Your task to perform on an android device: Open Yahoo.com Image 0: 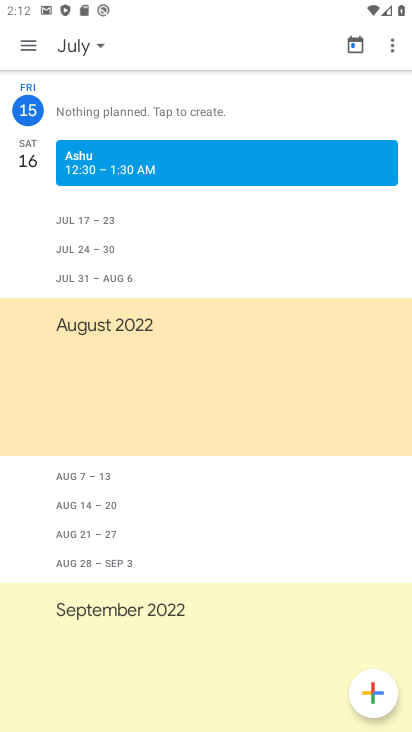
Step 0: press home button
Your task to perform on an android device: Open Yahoo.com Image 1: 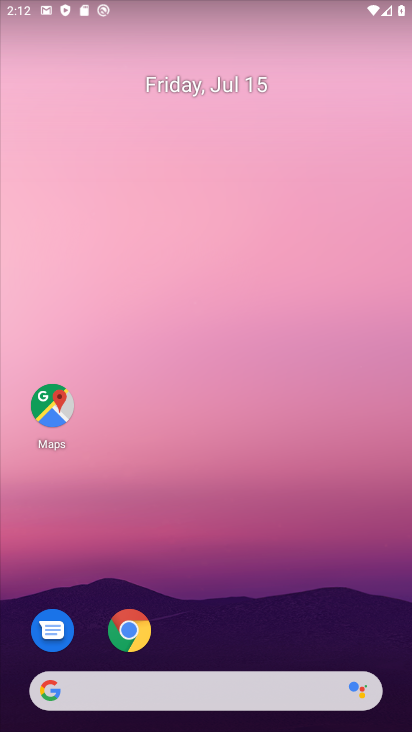
Step 1: drag from (144, 616) to (215, 187)
Your task to perform on an android device: Open Yahoo.com Image 2: 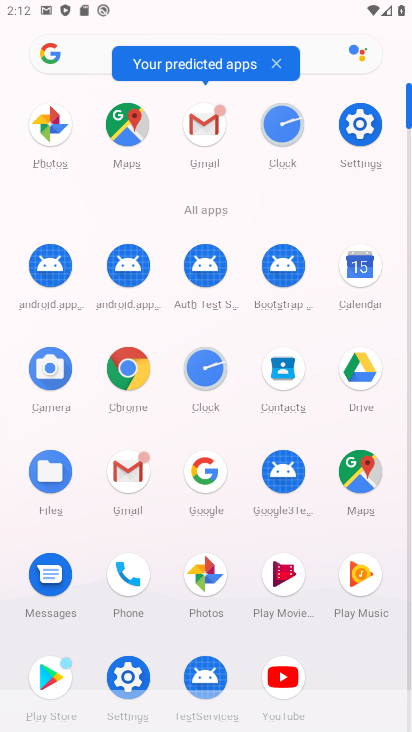
Step 2: click (114, 373)
Your task to perform on an android device: Open Yahoo.com Image 3: 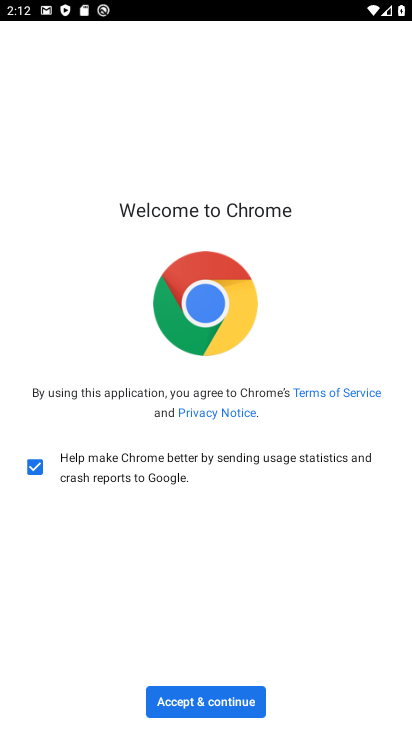
Step 3: click (191, 706)
Your task to perform on an android device: Open Yahoo.com Image 4: 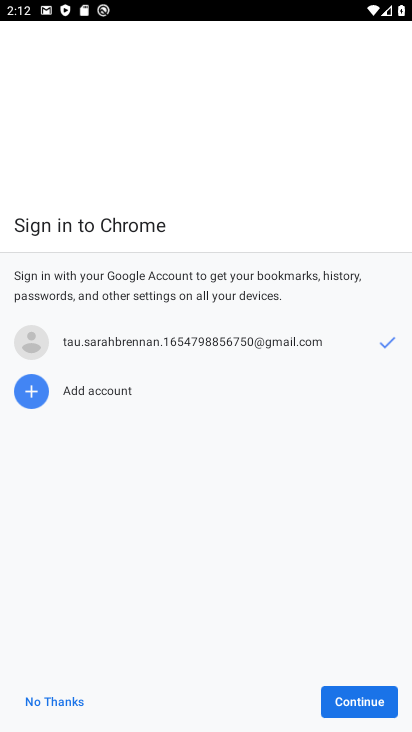
Step 4: click (342, 700)
Your task to perform on an android device: Open Yahoo.com Image 5: 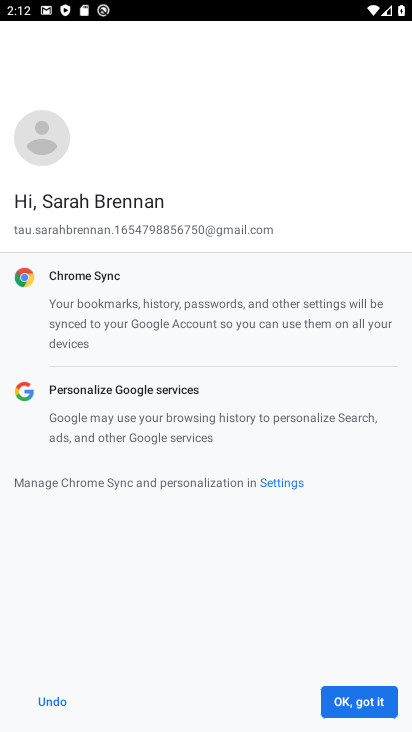
Step 5: click (368, 706)
Your task to perform on an android device: Open Yahoo.com Image 6: 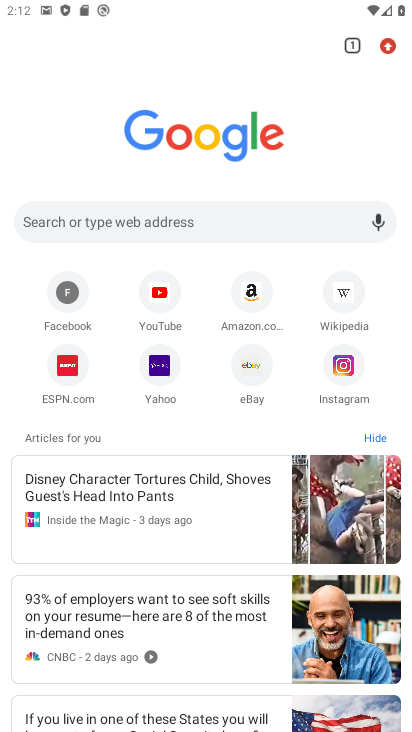
Step 6: click (166, 379)
Your task to perform on an android device: Open Yahoo.com Image 7: 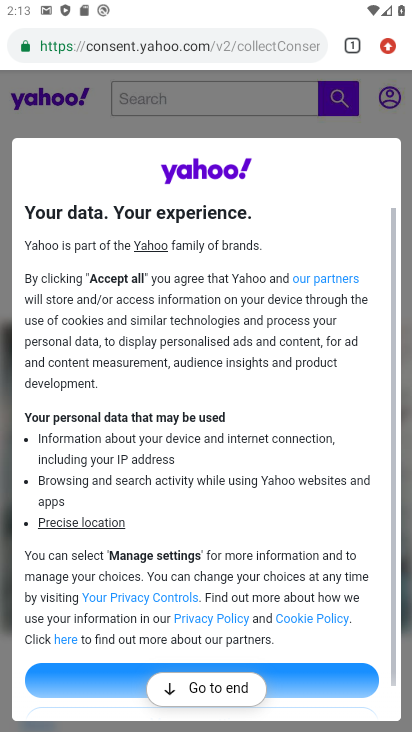
Step 7: click (282, 680)
Your task to perform on an android device: Open Yahoo.com Image 8: 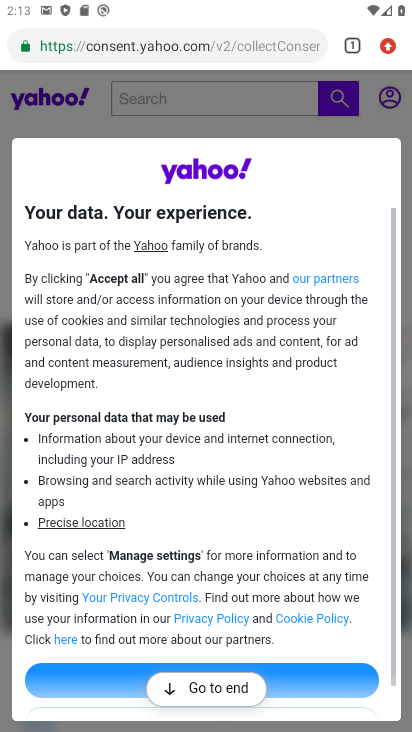
Step 8: drag from (264, 579) to (331, 291)
Your task to perform on an android device: Open Yahoo.com Image 9: 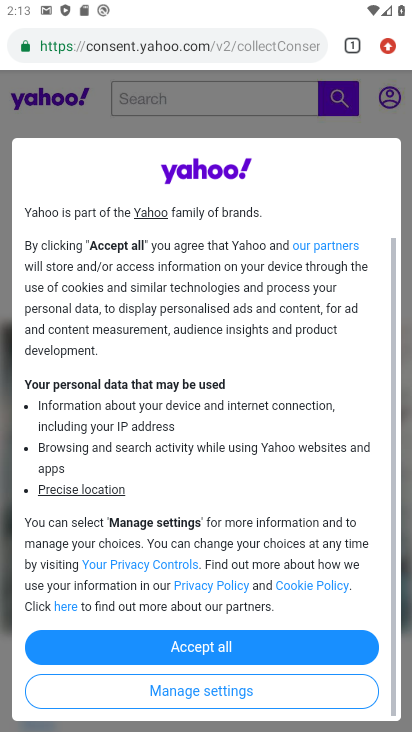
Step 9: click (201, 645)
Your task to perform on an android device: Open Yahoo.com Image 10: 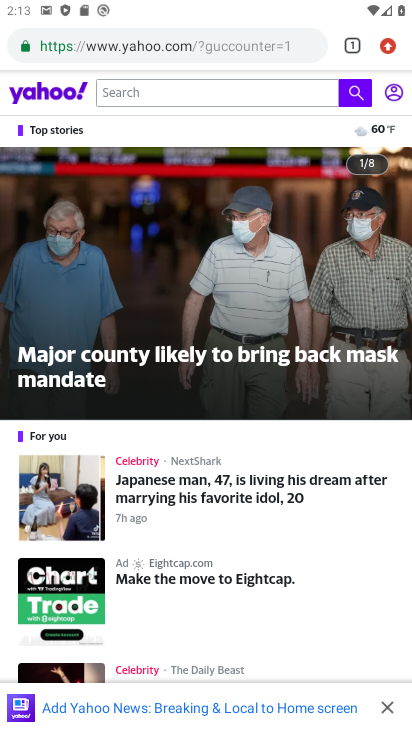
Step 10: task complete